Your task to perform on an android device: toggle airplane mode Image 0: 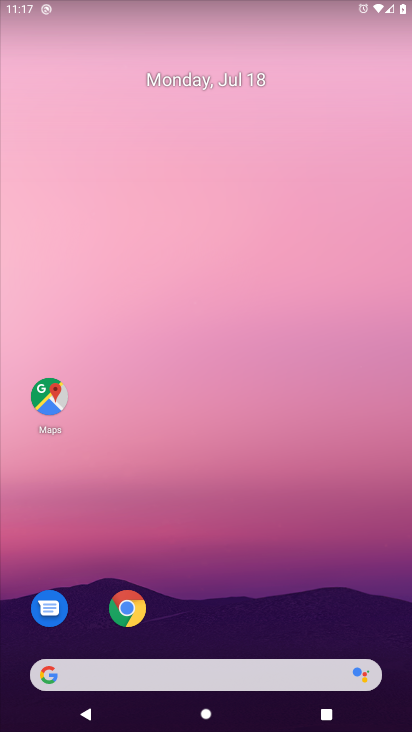
Step 0: drag from (40, 675) to (342, 140)
Your task to perform on an android device: toggle airplane mode Image 1: 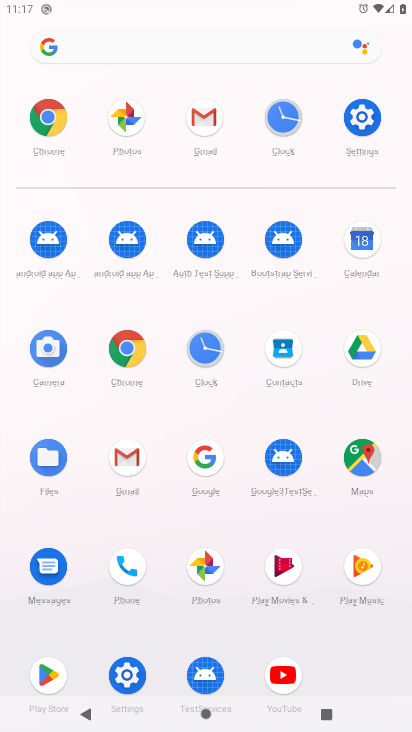
Step 1: click (128, 684)
Your task to perform on an android device: toggle airplane mode Image 2: 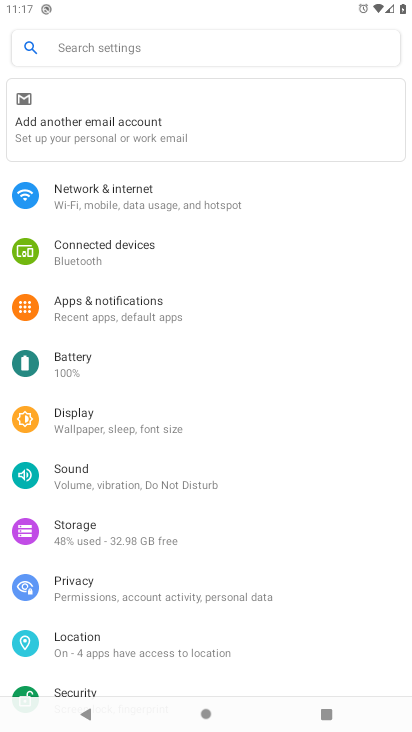
Step 2: click (125, 196)
Your task to perform on an android device: toggle airplane mode Image 3: 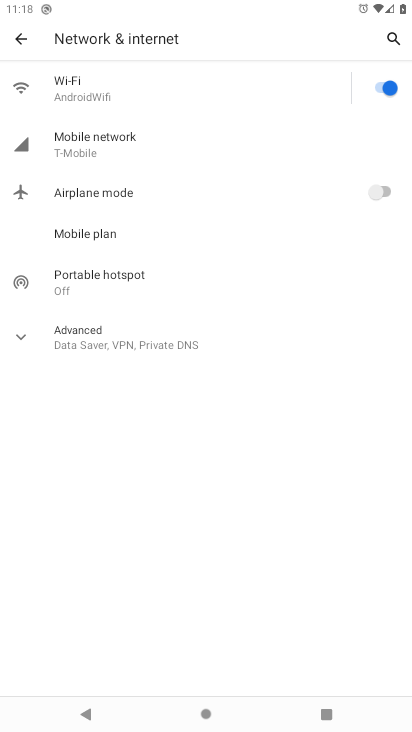
Step 3: task complete